Your task to perform on an android device: Open internet settings Image 0: 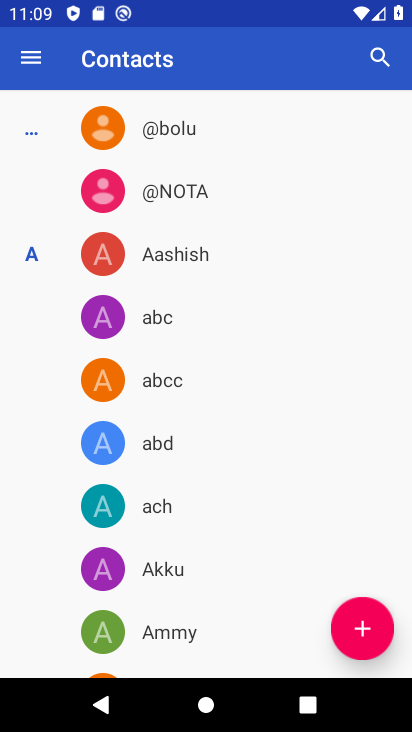
Step 0: press home button
Your task to perform on an android device: Open internet settings Image 1: 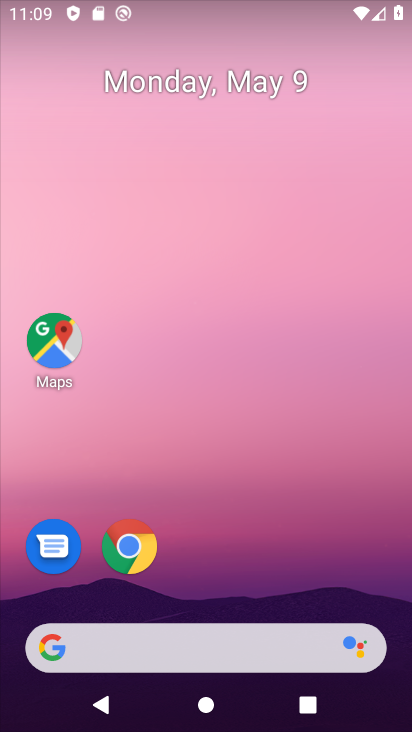
Step 1: drag from (363, 596) to (351, 31)
Your task to perform on an android device: Open internet settings Image 2: 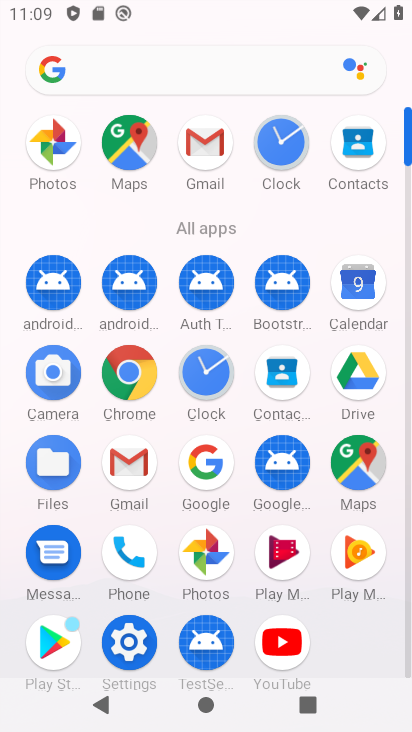
Step 2: click (122, 648)
Your task to perform on an android device: Open internet settings Image 3: 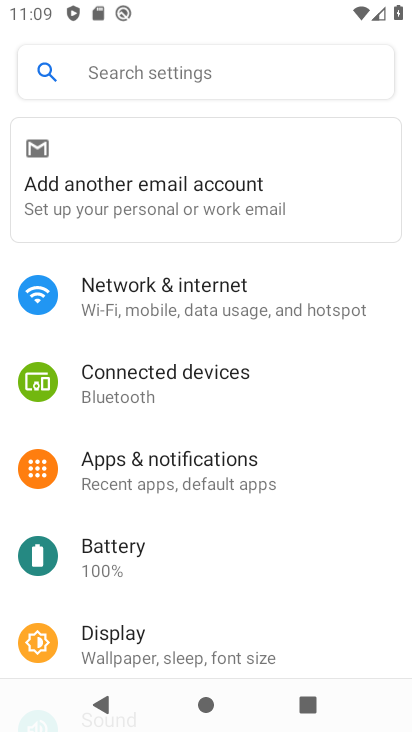
Step 3: click (159, 310)
Your task to perform on an android device: Open internet settings Image 4: 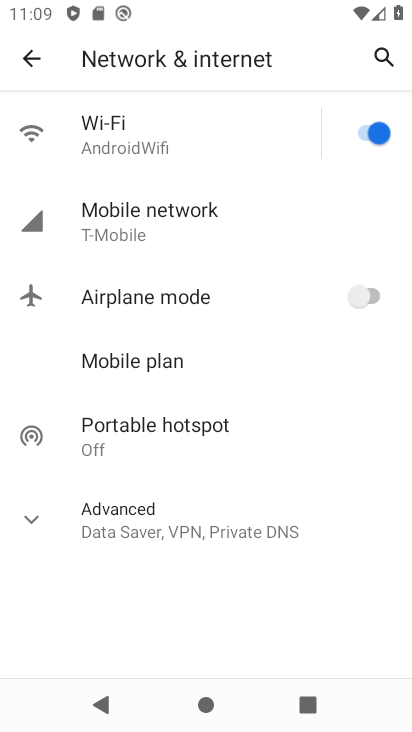
Step 4: task complete